Your task to perform on an android device: Go to Yahoo.com Image 0: 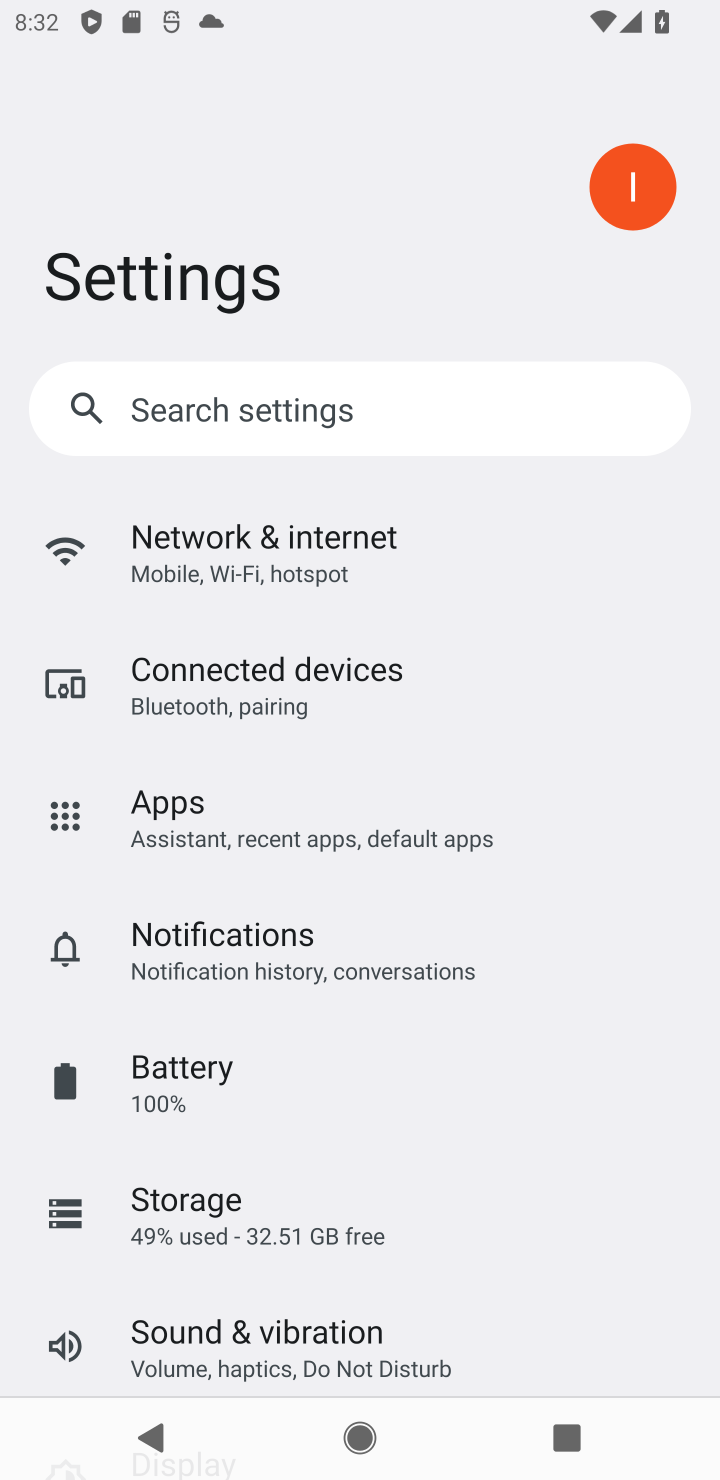
Step 0: press home button
Your task to perform on an android device: Go to Yahoo.com Image 1: 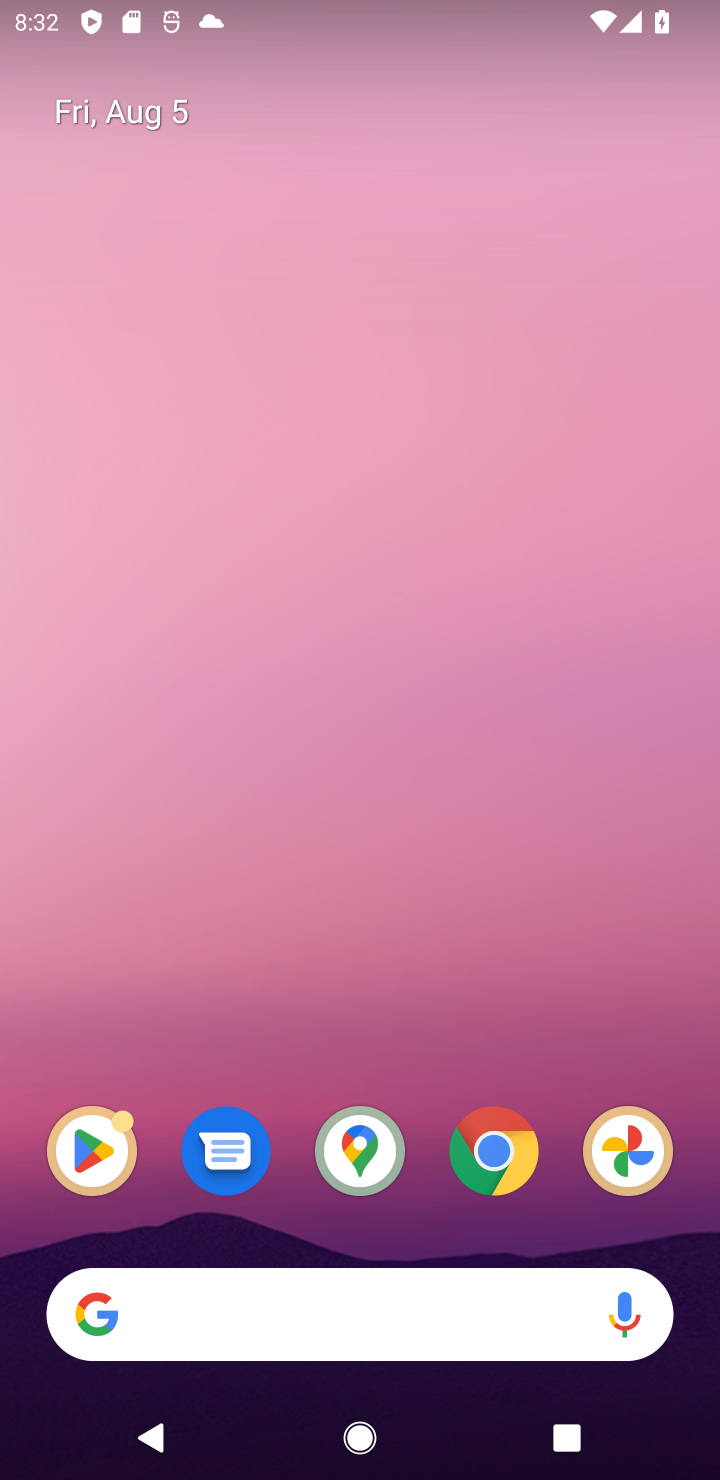
Step 1: click (480, 1158)
Your task to perform on an android device: Go to Yahoo.com Image 2: 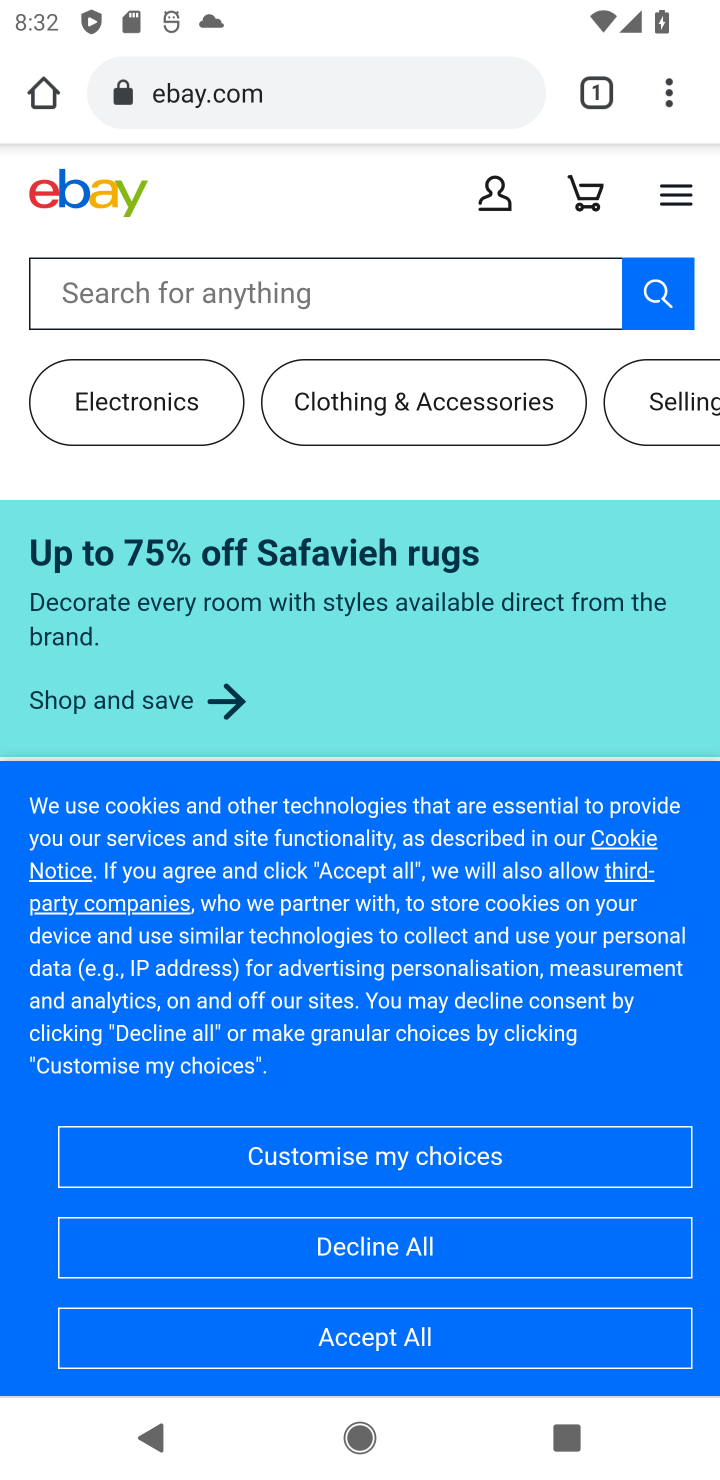
Step 2: click (206, 91)
Your task to perform on an android device: Go to Yahoo.com Image 3: 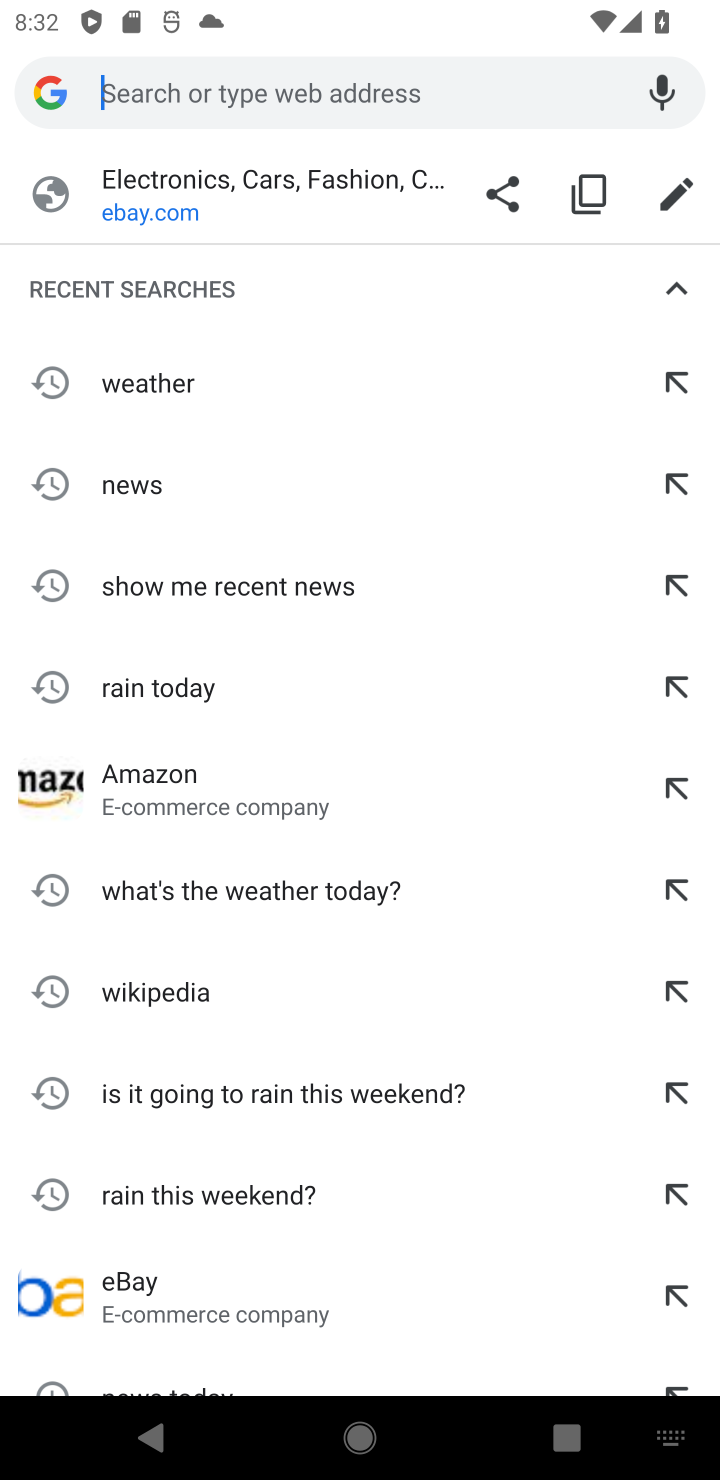
Step 3: type "www.yahoo.com"
Your task to perform on an android device: Go to Yahoo.com Image 4: 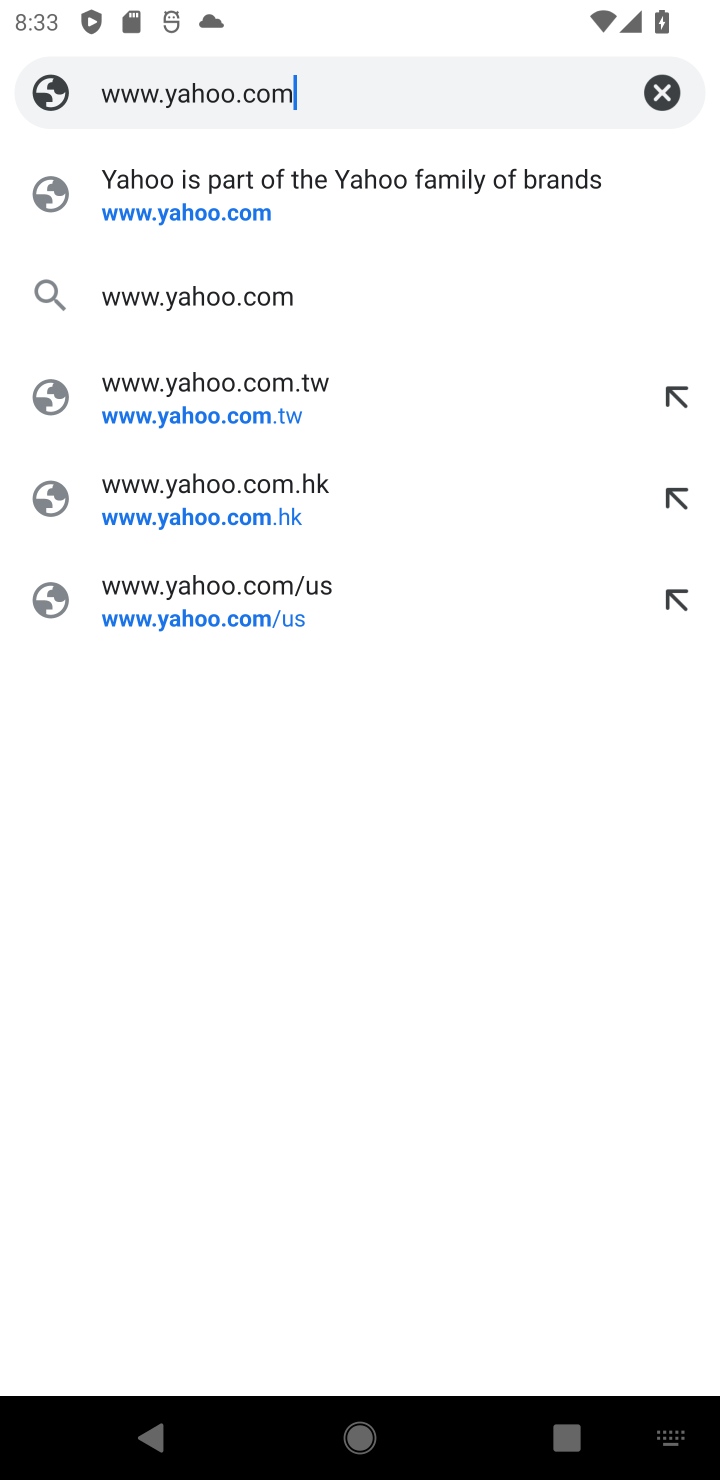
Step 4: click (145, 184)
Your task to perform on an android device: Go to Yahoo.com Image 5: 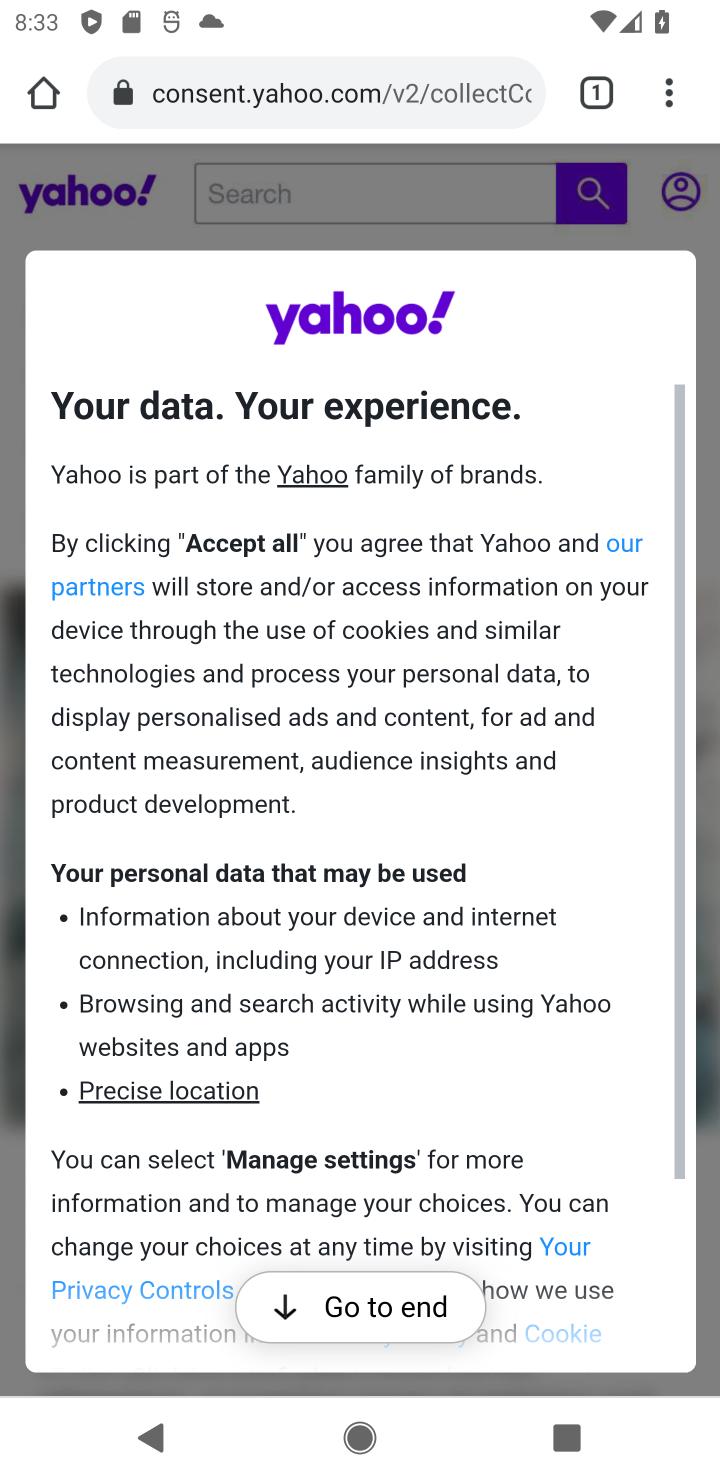
Step 5: task complete